Your task to perform on an android device: turn on the 12-hour format for clock Image 0: 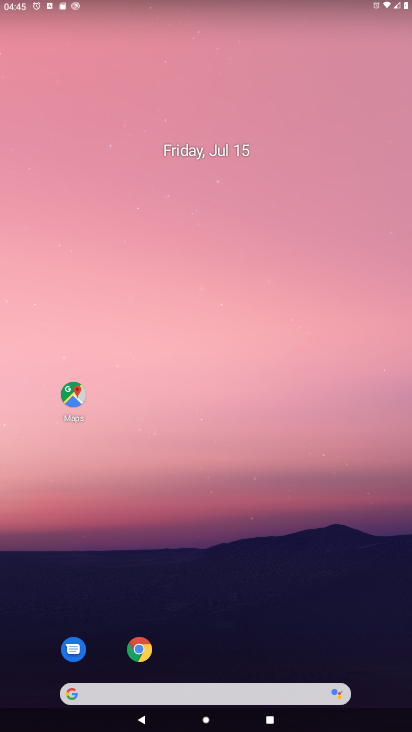
Step 0: drag from (382, 664) to (325, 122)
Your task to perform on an android device: turn on the 12-hour format for clock Image 1: 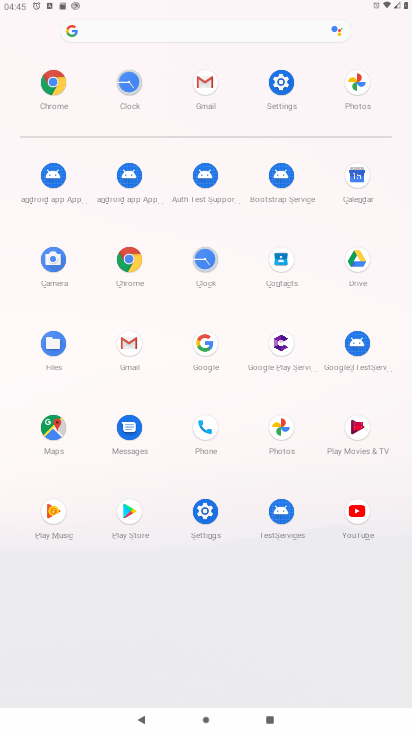
Step 1: click (206, 259)
Your task to perform on an android device: turn on the 12-hour format for clock Image 2: 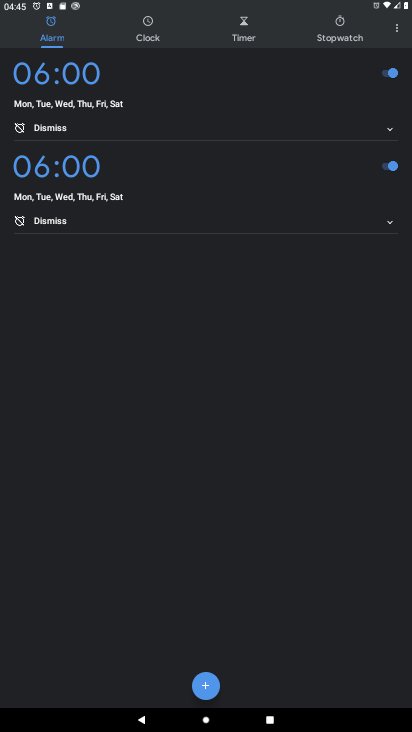
Step 2: click (395, 34)
Your task to perform on an android device: turn on the 12-hour format for clock Image 3: 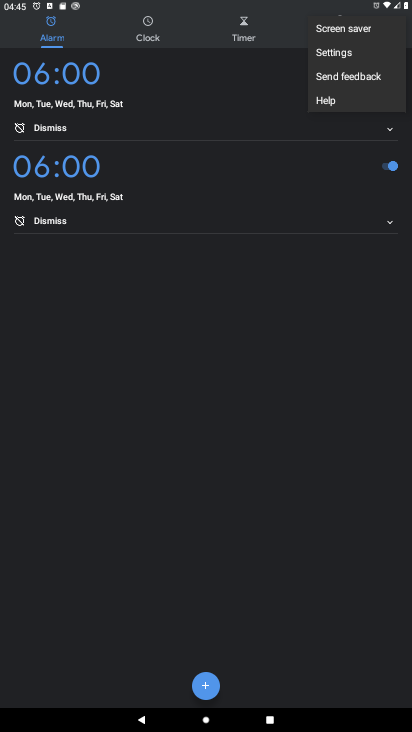
Step 3: click (330, 52)
Your task to perform on an android device: turn on the 12-hour format for clock Image 4: 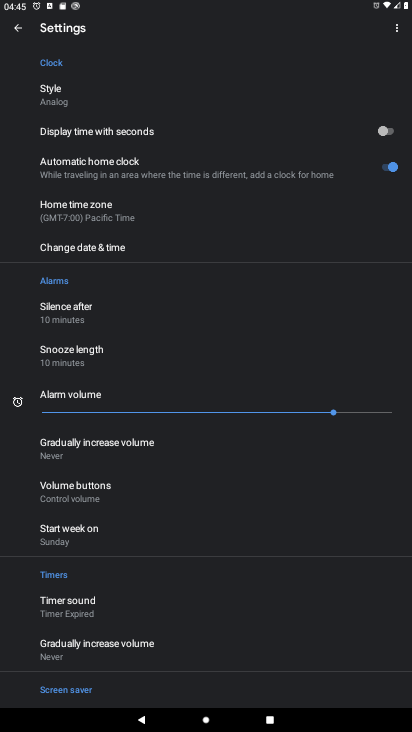
Step 4: click (92, 247)
Your task to perform on an android device: turn on the 12-hour format for clock Image 5: 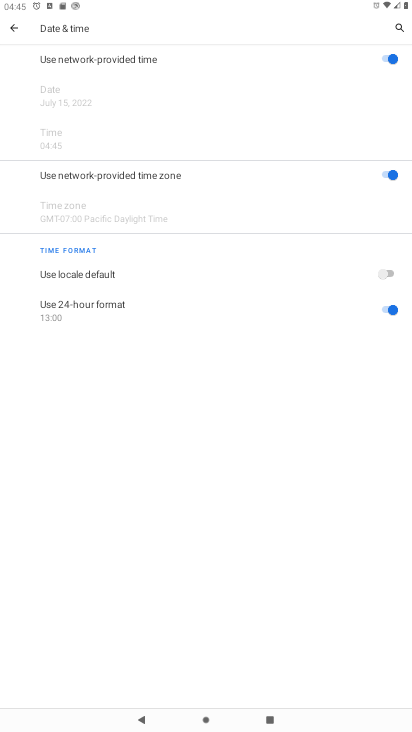
Step 5: click (383, 310)
Your task to perform on an android device: turn on the 12-hour format for clock Image 6: 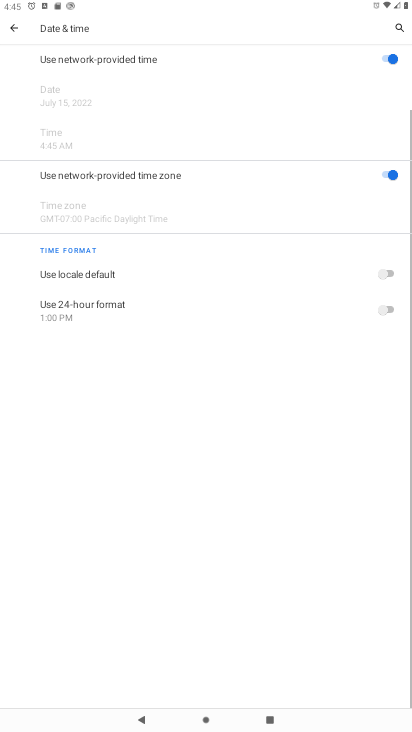
Step 6: click (391, 270)
Your task to perform on an android device: turn on the 12-hour format for clock Image 7: 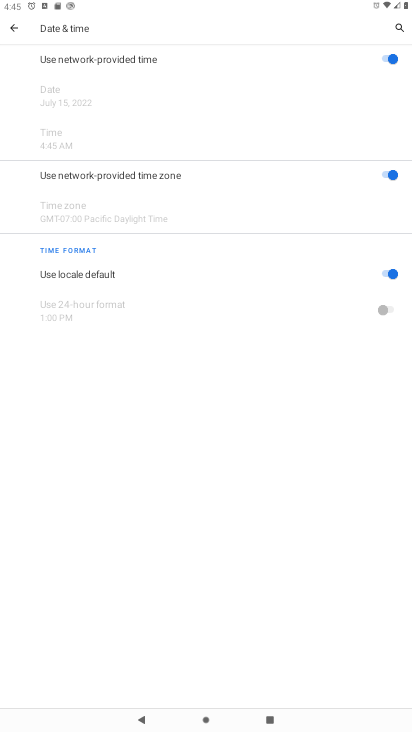
Step 7: task complete